Your task to perform on an android device: Open Google Maps Image 0: 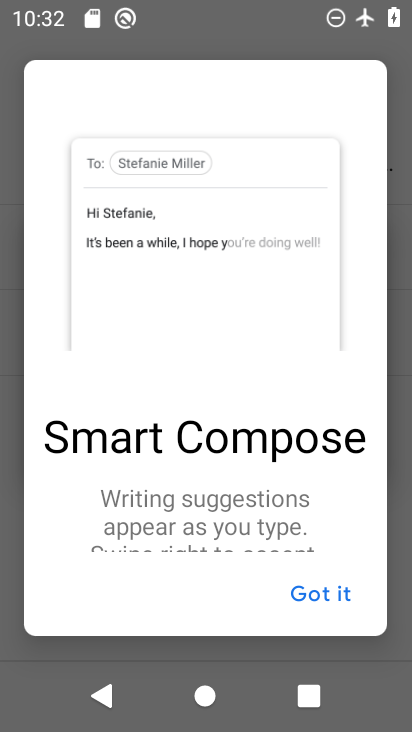
Step 0: press home button
Your task to perform on an android device: Open Google Maps Image 1: 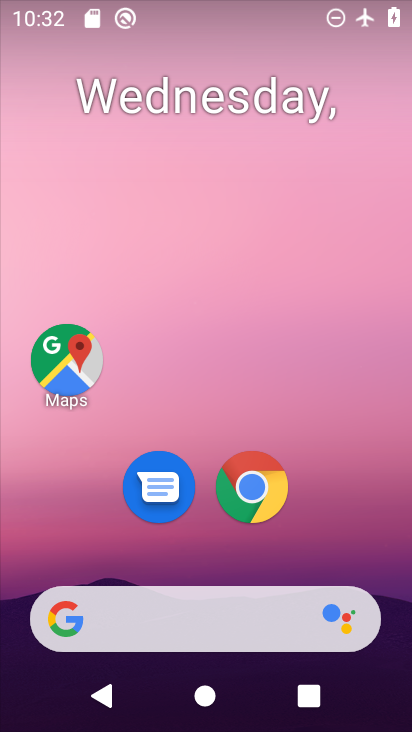
Step 1: click (58, 345)
Your task to perform on an android device: Open Google Maps Image 2: 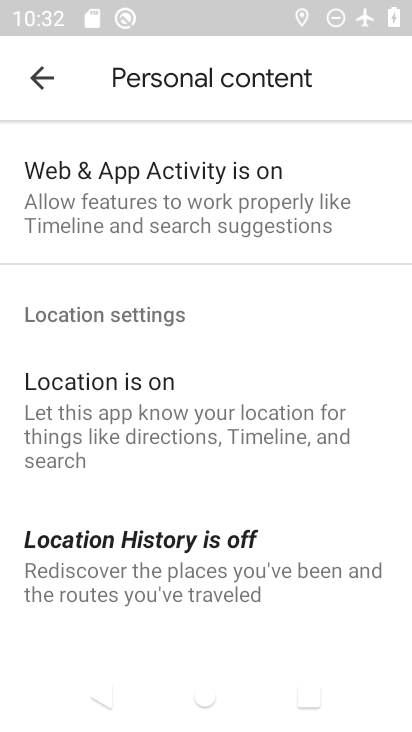
Step 2: click (41, 73)
Your task to perform on an android device: Open Google Maps Image 3: 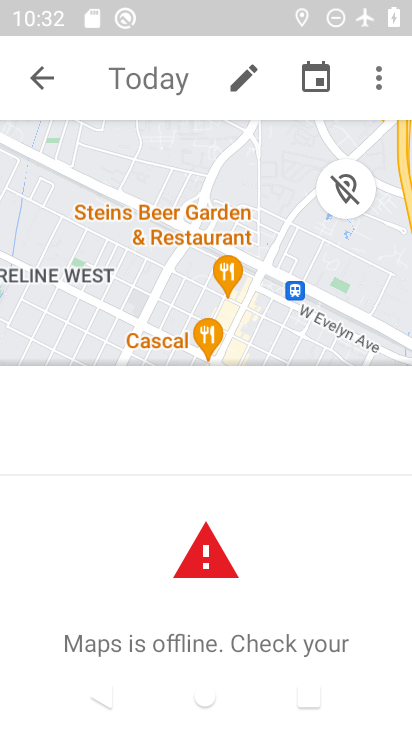
Step 3: click (42, 69)
Your task to perform on an android device: Open Google Maps Image 4: 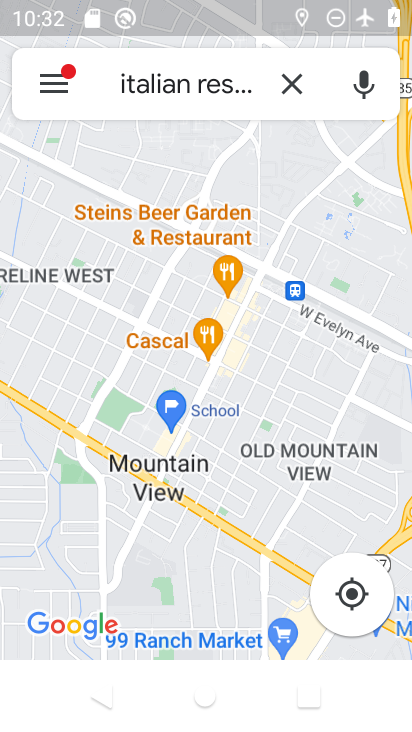
Step 4: click (286, 81)
Your task to perform on an android device: Open Google Maps Image 5: 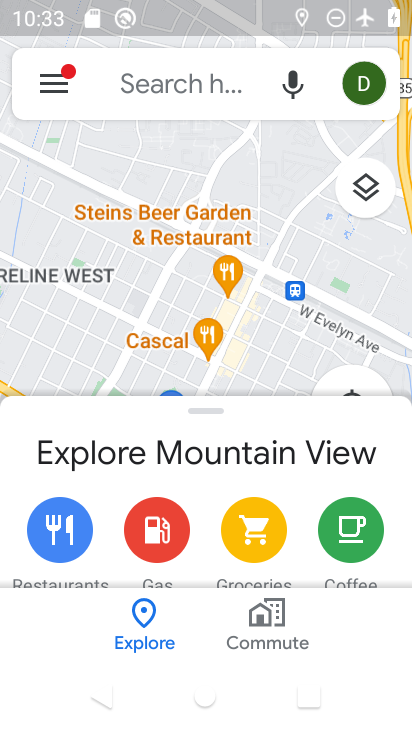
Step 5: task complete